Your task to perform on an android device: turn off location Image 0: 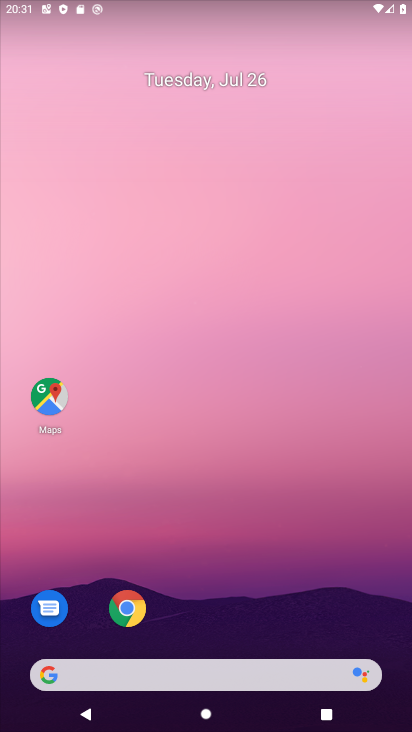
Step 0: drag from (23, 694) to (245, 128)
Your task to perform on an android device: turn off location Image 1: 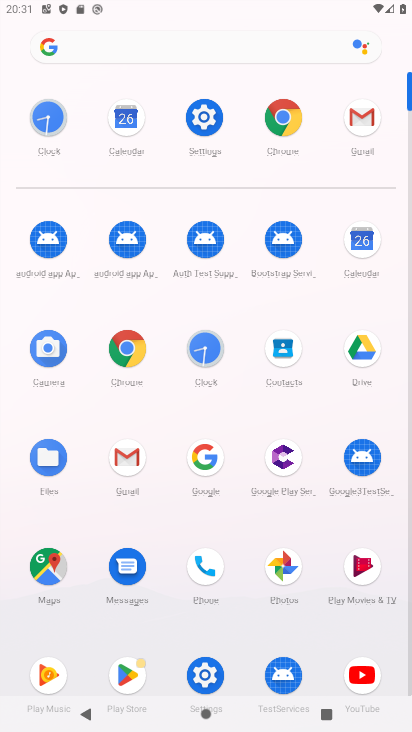
Step 1: click (195, 684)
Your task to perform on an android device: turn off location Image 2: 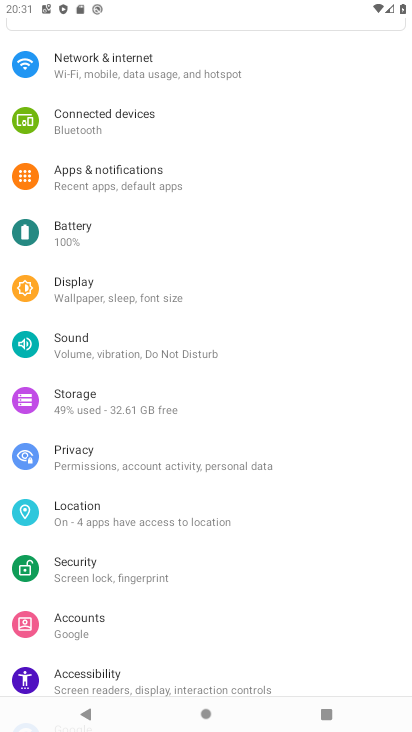
Step 2: click (100, 505)
Your task to perform on an android device: turn off location Image 3: 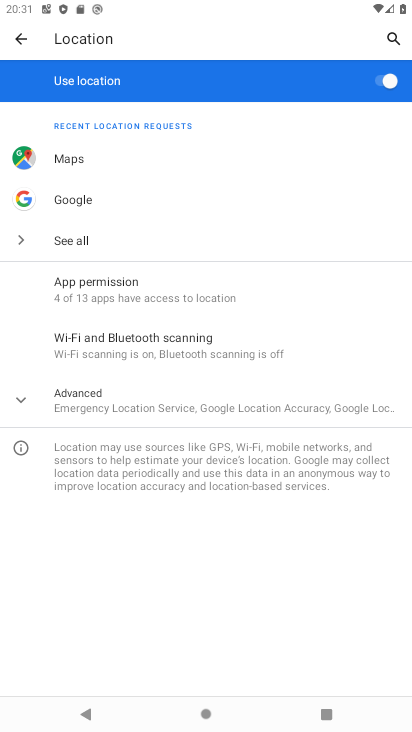
Step 3: click (390, 85)
Your task to perform on an android device: turn off location Image 4: 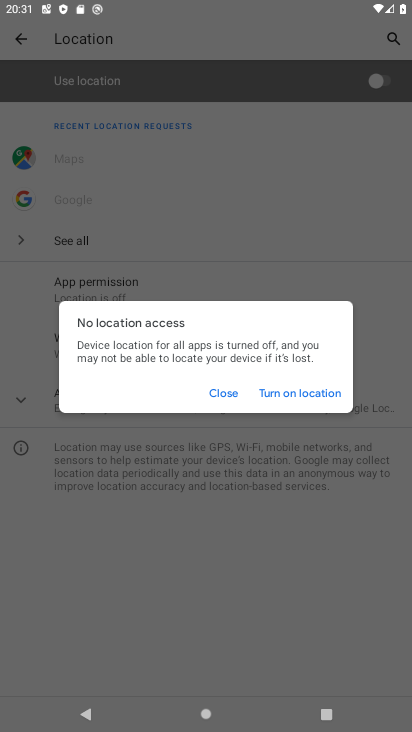
Step 4: task complete